Your task to perform on an android device: Search for 35 best books of all time Image 0: 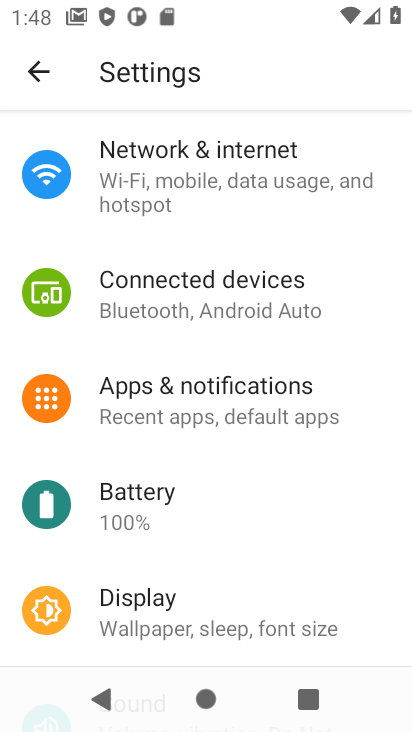
Step 0: press home button
Your task to perform on an android device: Search for 35 best books of all time Image 1: 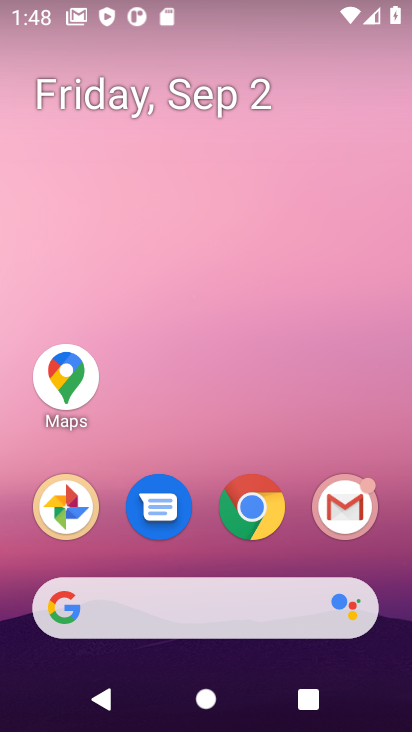
Step 1: click (254, 528)
Your task to perform on an android device: Search for 35 best books of all time Image 2: 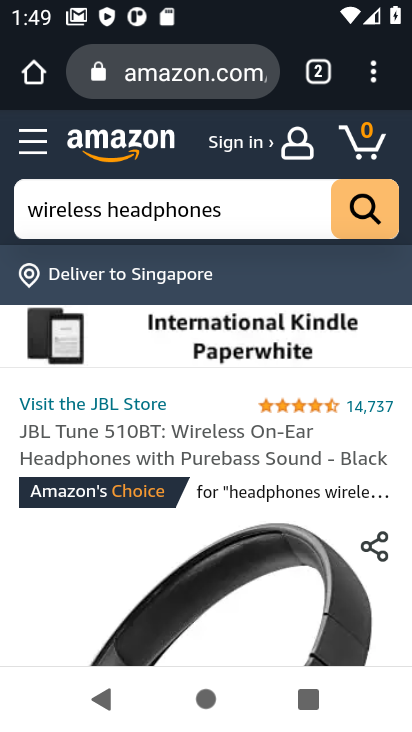
Step 2: press home button
Your task to perform on an android device: Search for 35 best books of all time Image 3: 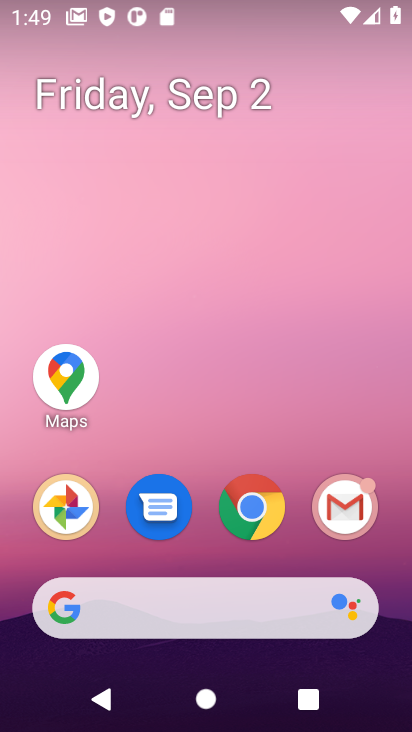
Step 3: click (258, 502)
Your task to perform on an android device: Search for 35 best books of all time Image 4: 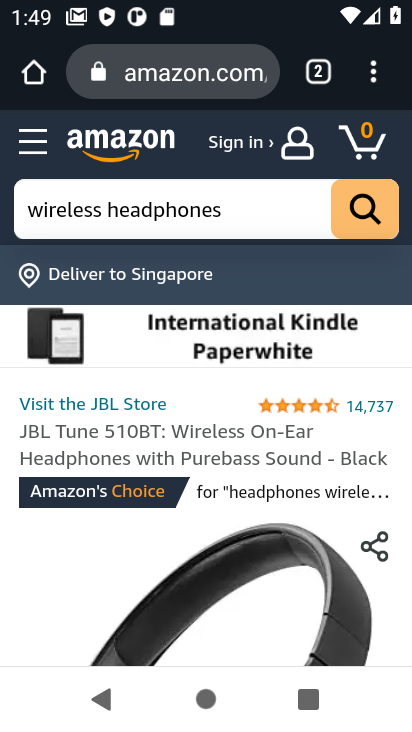
Step 4: click (243, 79)
Your task to perform on an android device: Search for 35 best books of all time Image 5: 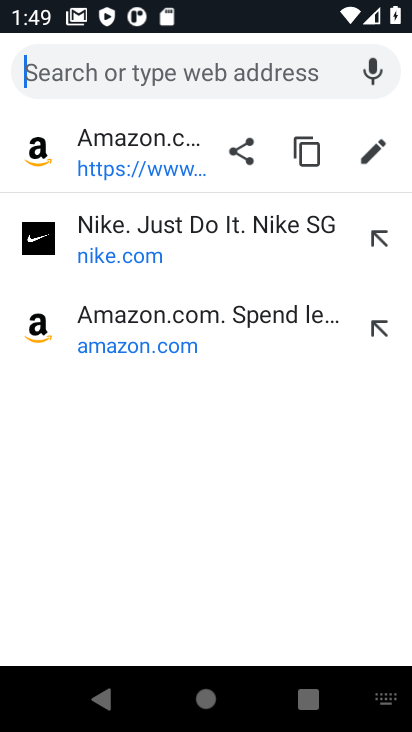
Step 5: type "35 best  book"
Your task to perform on an android device: Search for 35 best books of all time Image 6: 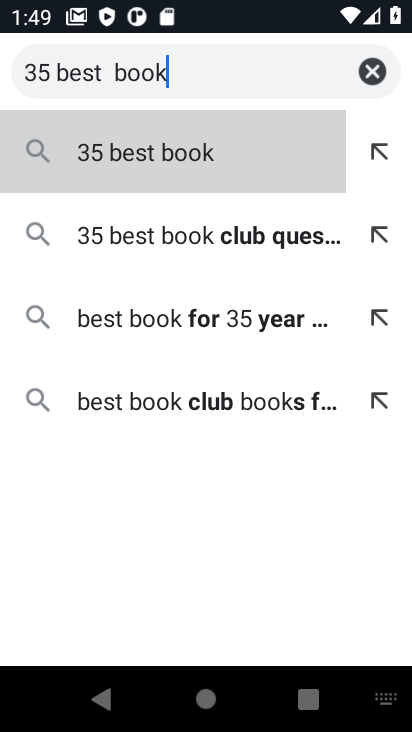
Step 6: click (143, 166)
Your task to perform on an android device: Search for 35 best books of all time Image 7: 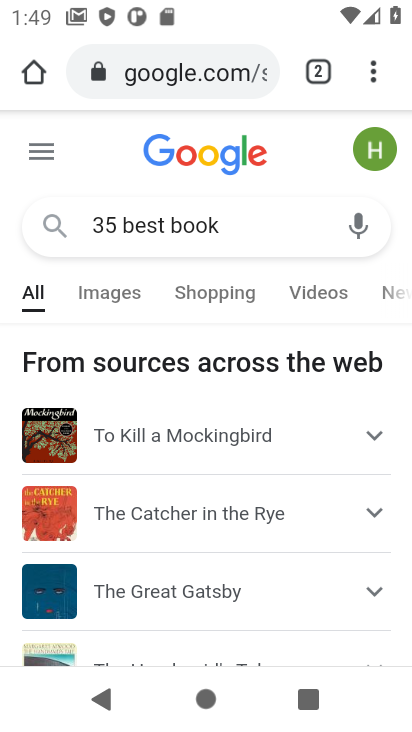
Step 7: task complete